Your task to perform on an android device: Find coffee shops on Maps Image 0: 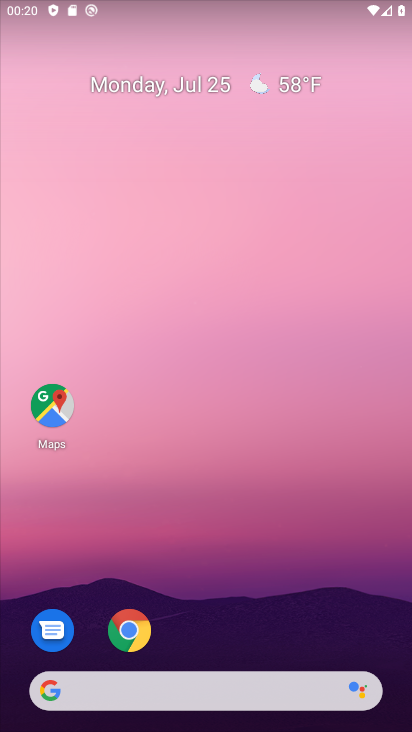
Step 0: drag from (220, 553) to (18, 55)
Your task to perform on an android device: Find coffee shops on Maps Image 1: 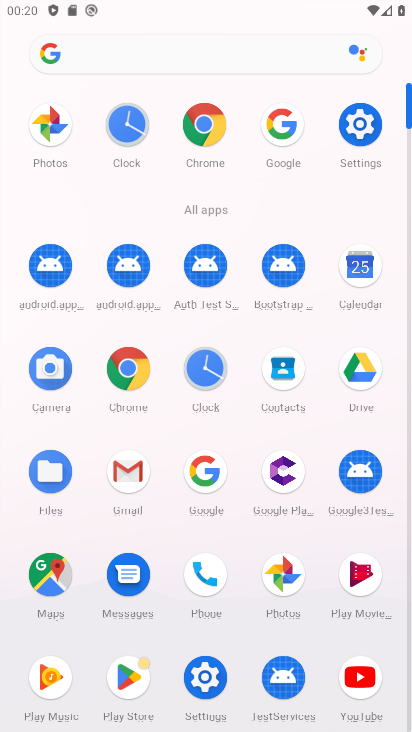
Step 1: click (58, 564)
Your task to perform on an android device: Find coffee shops on Maps Image 2: 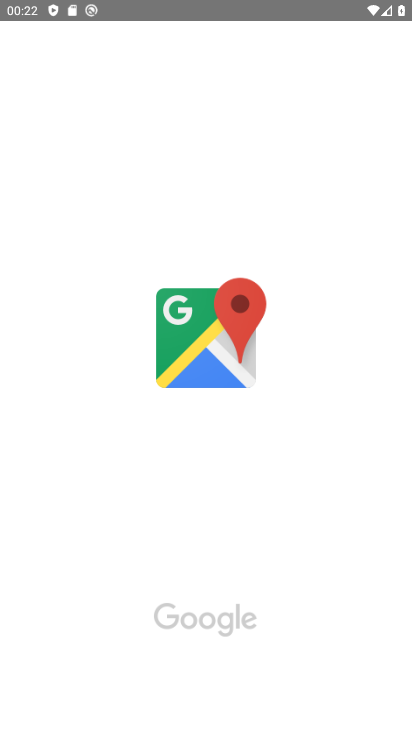
Step 2: task complete